Your task to perform on an android device: see sites visited before in the chrome app Image 0: 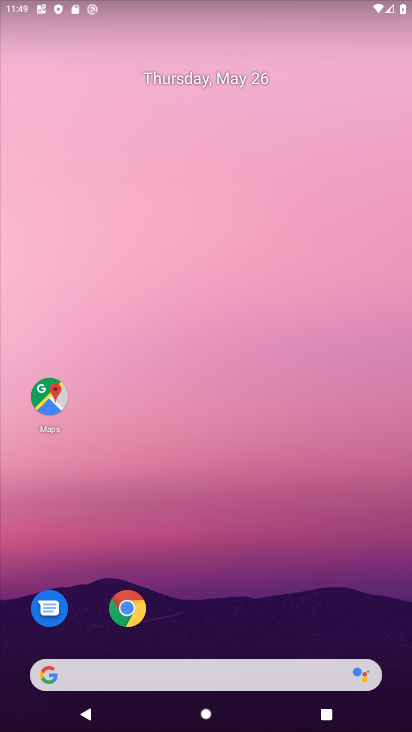
Step 0: drag from (261, 551) to (0, 580)
Your task to perform on an android device: see sites visited before in the chrome app Image 1: 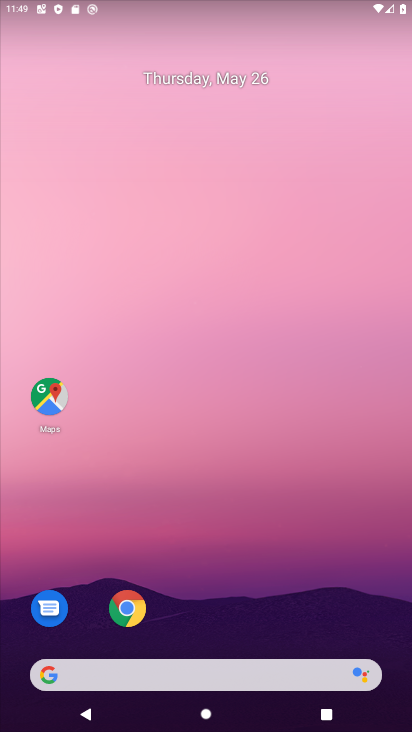
Step 1: drag from (24, 671) to (19, 65)
Your task to perform on an android device: see sites visited before in the chrome app Image 2: 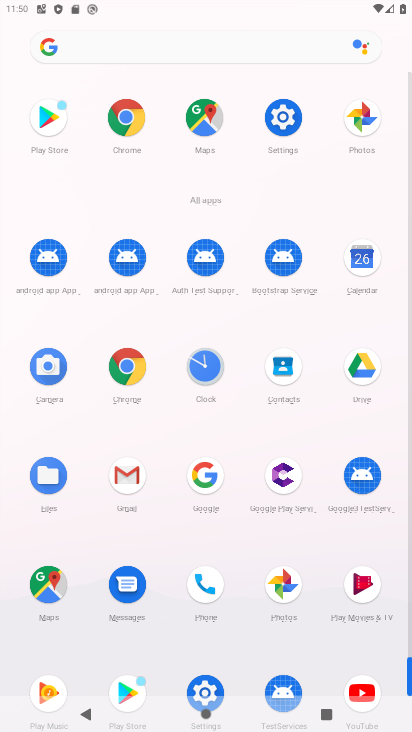
Step 2: click (123, 113)
Your task to perform on an android device: see sites visited before in the chrome app Image 3: 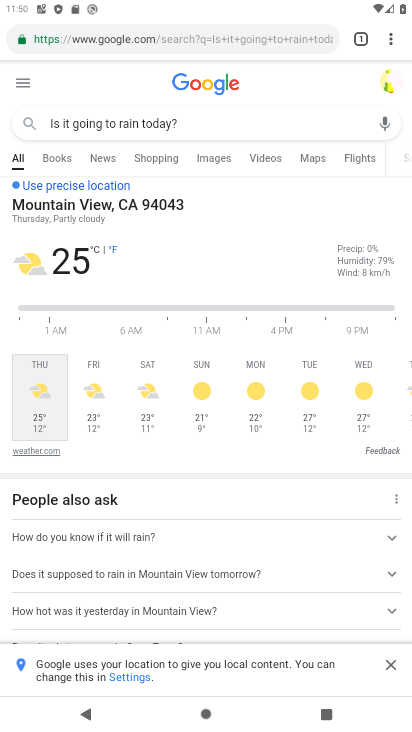
Step 3: task complete